Your task to perform on an android device: turn on wifi Image 0: 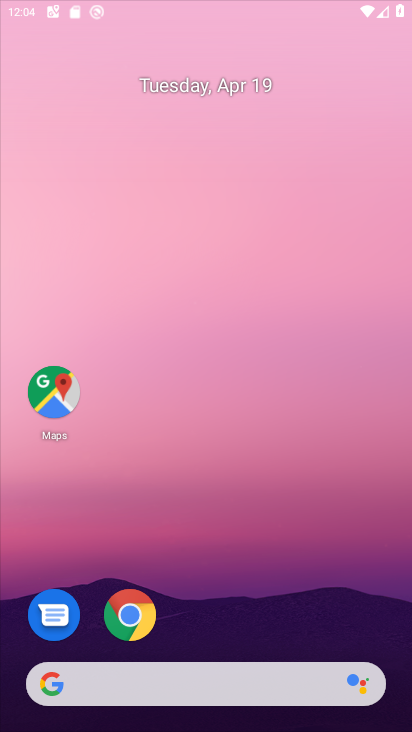
Step 0: drag from (246, 323) to (255, 194)
Your task to perform on an android device: turn on wifi Image 1: 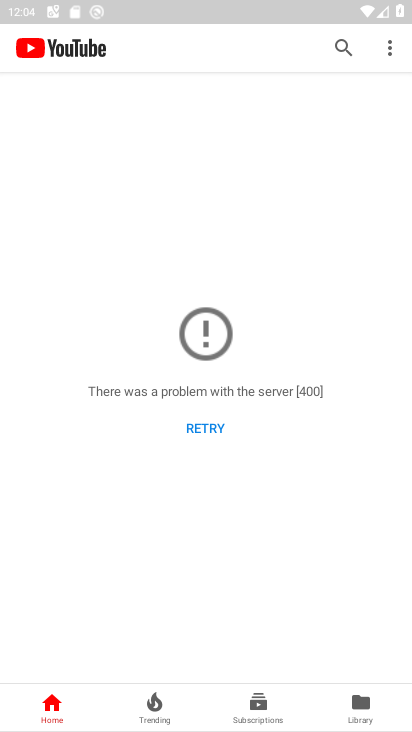
Step 1: press home button
Your task to perform on an android device: turn on wifi Image 2: 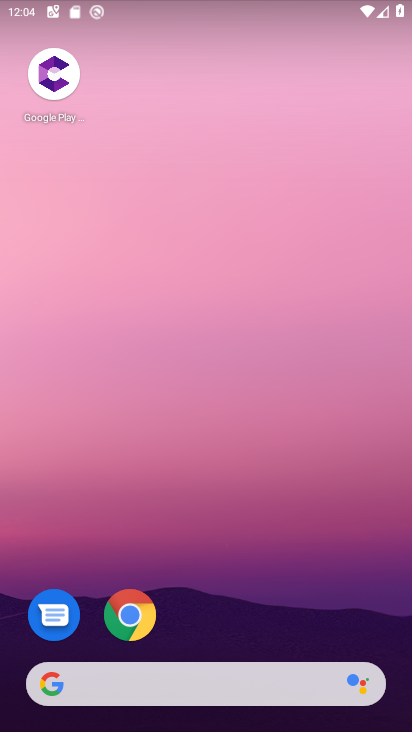
Step 2: drag from (172, 654) to (208, 169)
Your task to perform on an android device: turn on wifi Image 3: 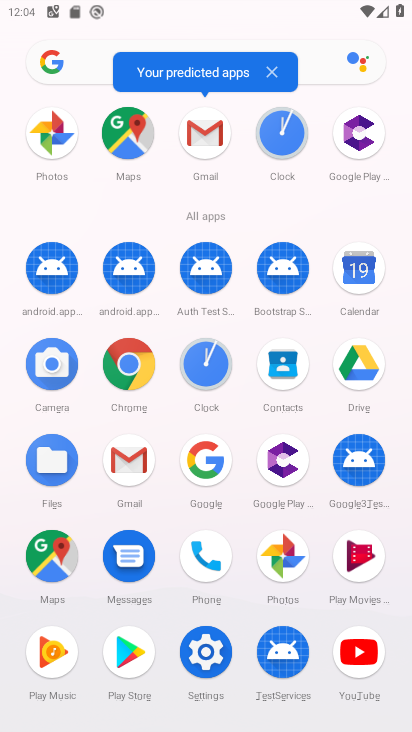
Step 3: click (201, 653)
Your task to perform on an android device: turn on wifi Image 4: 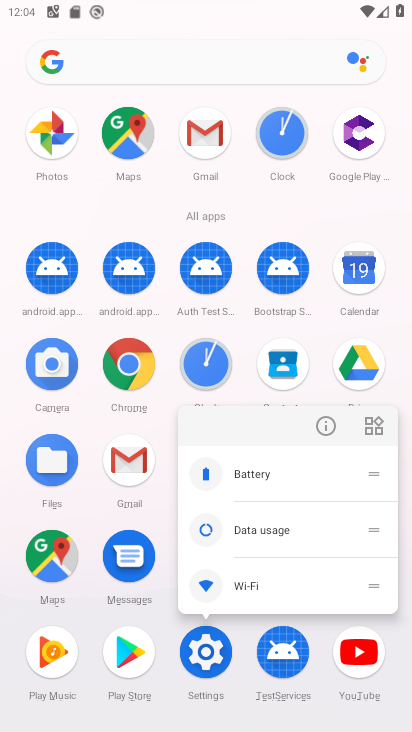
Step 4: click (202, 653)
Your task to perform on an android device: turn on wifi Image 5: 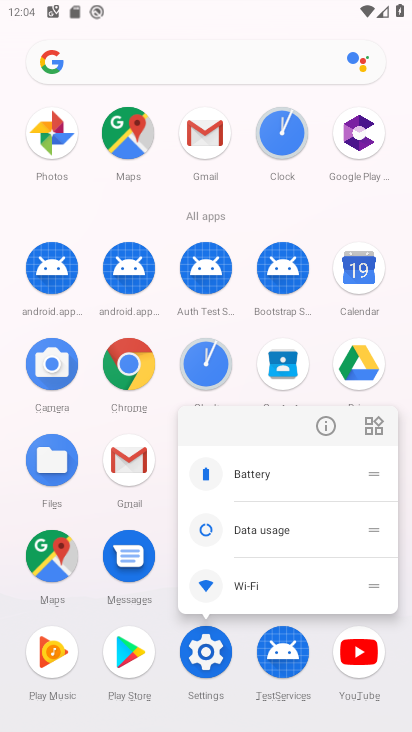
Step 5: click (213, 653)
Your task to perform on an android device: turn on wifi Image 6: 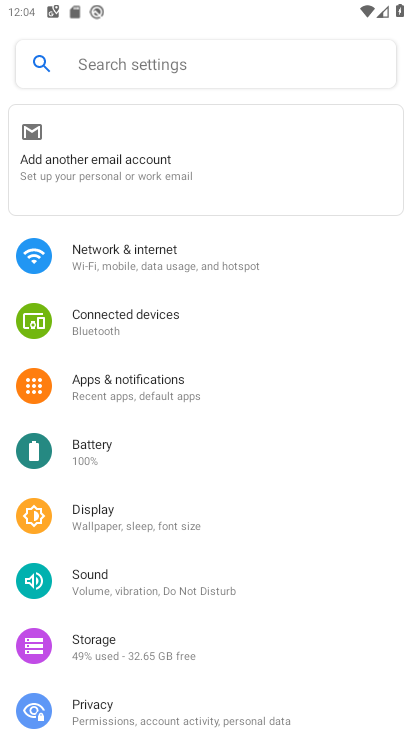
Step 6: click (106, 253)
Your task to perform on an android device: turn on wifi Image 7: 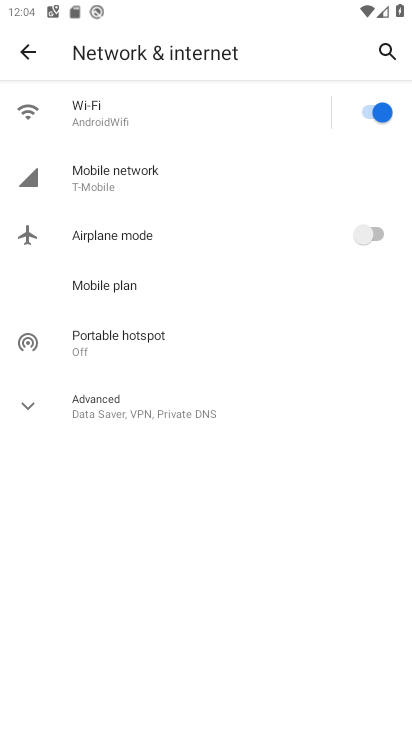
Step 7: task complete